Your task to perform on an android device: turn off airplane mode Image 0: 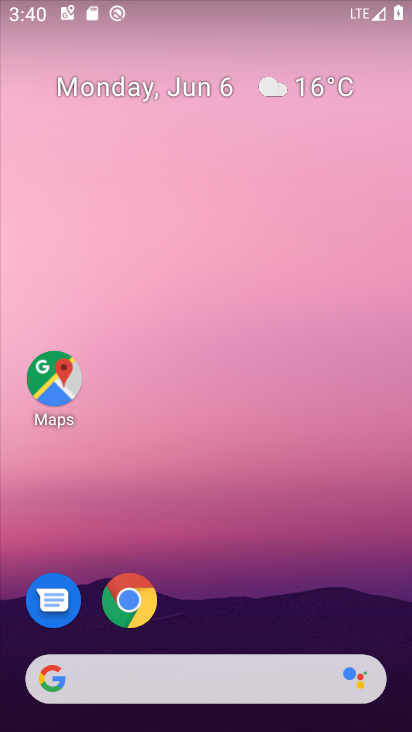
Step 0: drag from (256, 628) to (173, 42)
Your task to perform on an android device: turn off airplane mode Image 1: 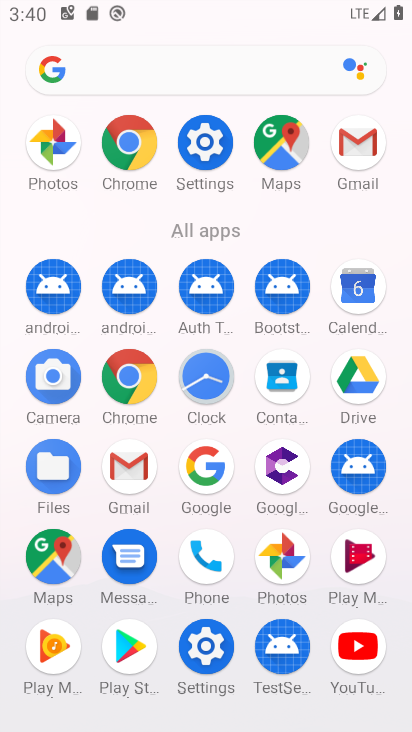
Step 1: click (196, 150)
Your task to perform on an android device: turn off airplane mode Image 2: 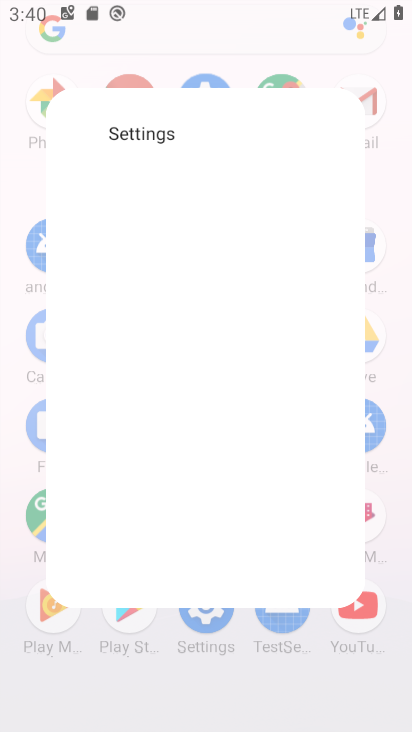
Step 2: click (198, 152)
Your task to perform on an android device: turn off airplane mode Image 3: 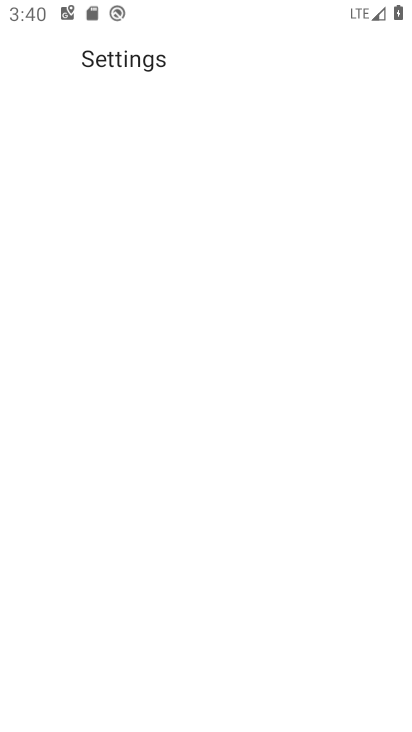
Step 3: click (199, 153)
Your task to perform on an android device: turn off airplane mode Image 4: 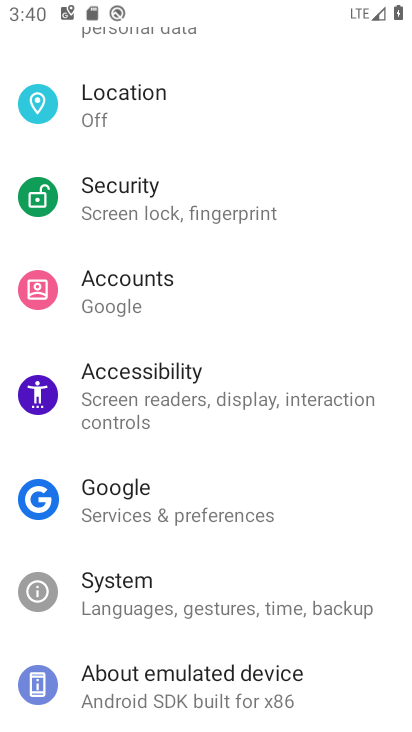
Step 4: drag from (191, 127) to (239, 689)
Your task to perform on an android device: turn off airplane mode Image 5: 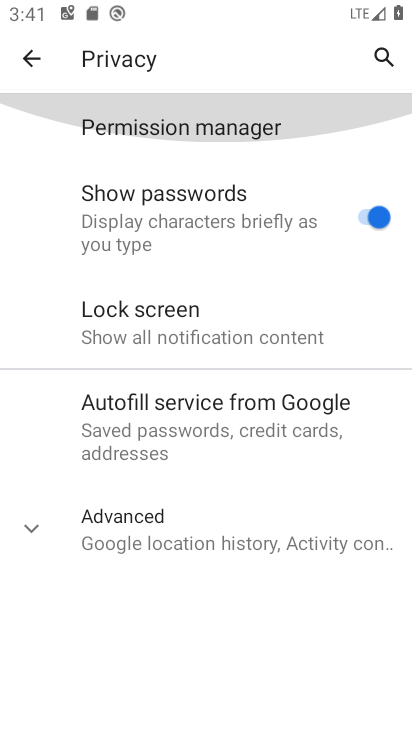
Step 5: drag from (194, 188) to (235, 698)
Your task to perform on an android device: turn off airplane mode Image 6: 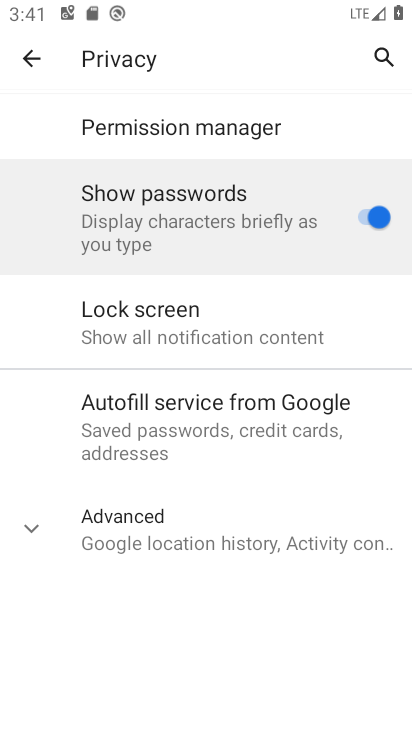
Step 6: drag from (154, 273) to (205, 652)
Your task to perform on an android device: turn off airplane mode Image 7: 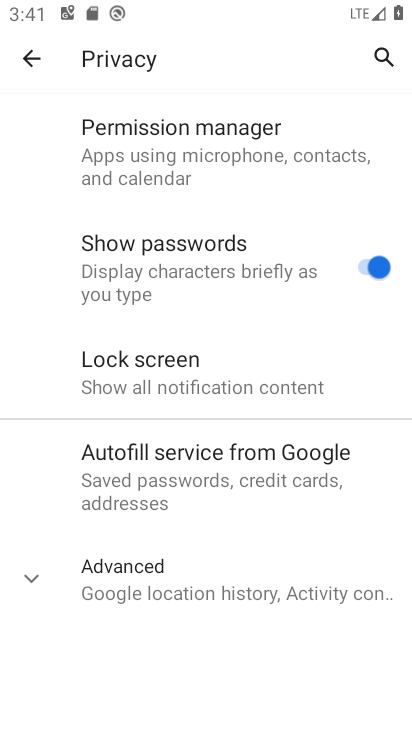
Step 7: click (39, 38)
Your task to perform on an android device: turn off airplane mode Image 8: 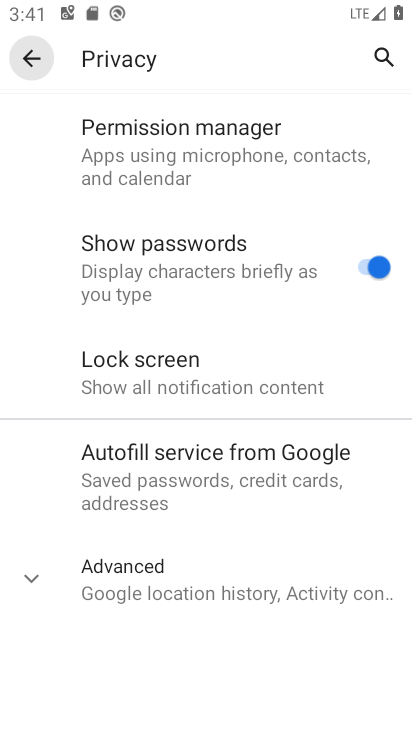
Step 8: click (30, 50)
Your task to perform on an android device: turn off airplane mode Image 9: 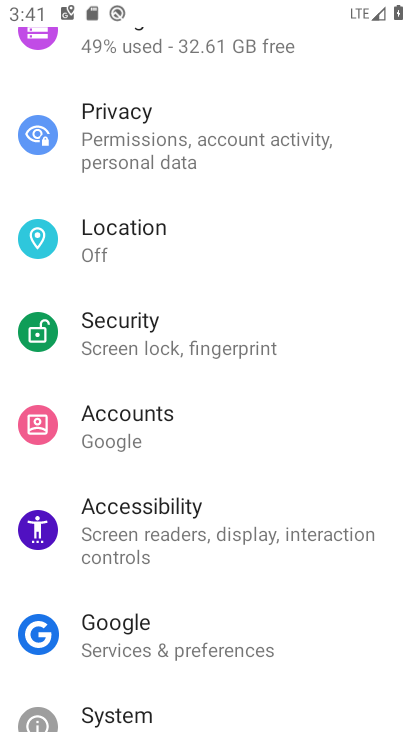
Step 9: drag from (182, 141) to (154, 627)
Your task to perform on an android device: turn off airplane mode Image 10: 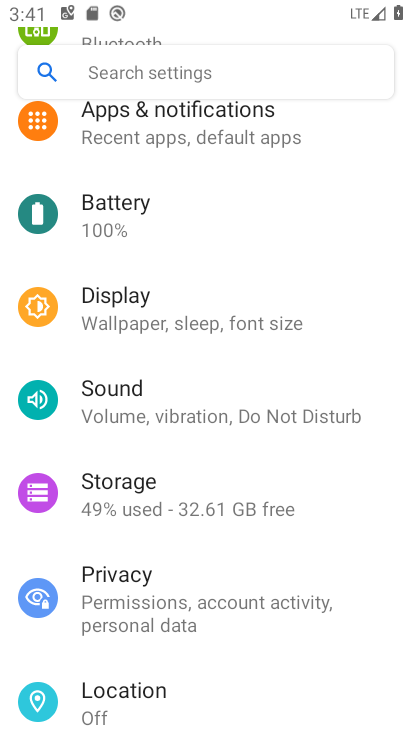
Step 10: drag from (122, 175) to (231, 578)
Your task to perform on an android device: turn off airplane mode Image 11: 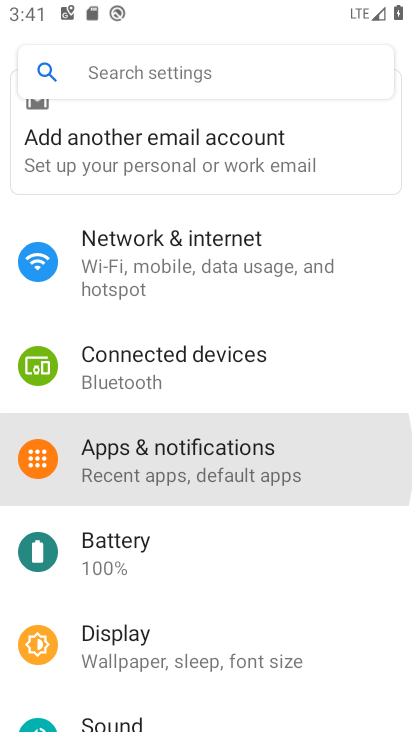
Step 11: drag from (181, 164) to (238, 537)
Your task to perform on an android device: turn off airplane mode Image 12: 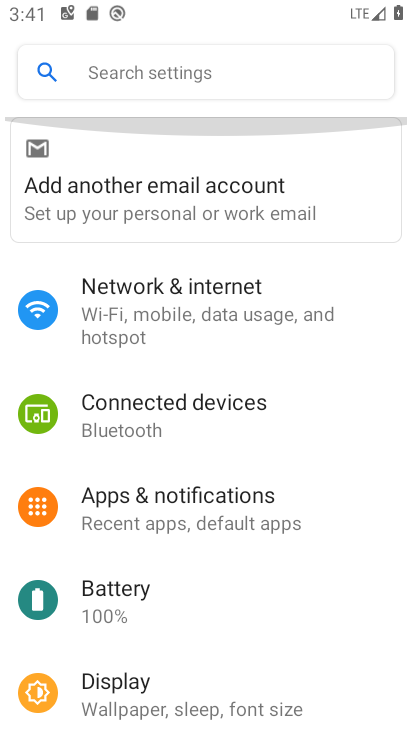
Step 12: drag from (163, 179) to (176, 629)
Your task to perform on an android device: turn off airplane mode Image 13: 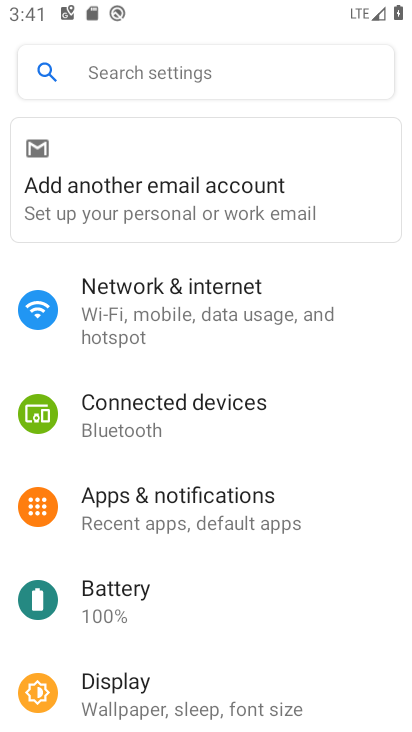
Step 13: click (220, 296)
Your task to perform on an android device: turn off airplane mode Image 14: 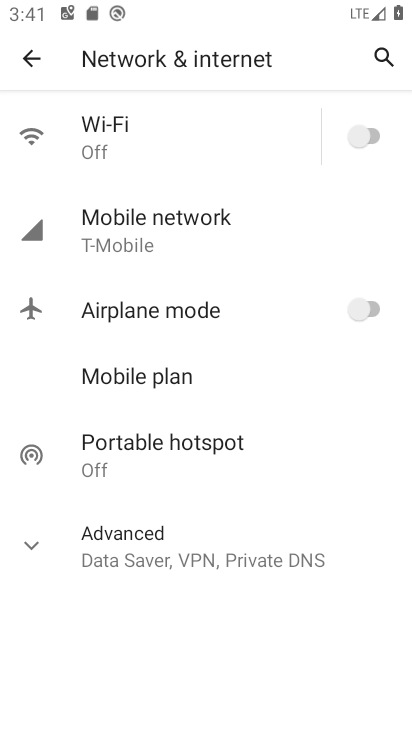
Step 14: task complete